Your task to perform on an android device: find snoozed emails in the gmail app Image 0: 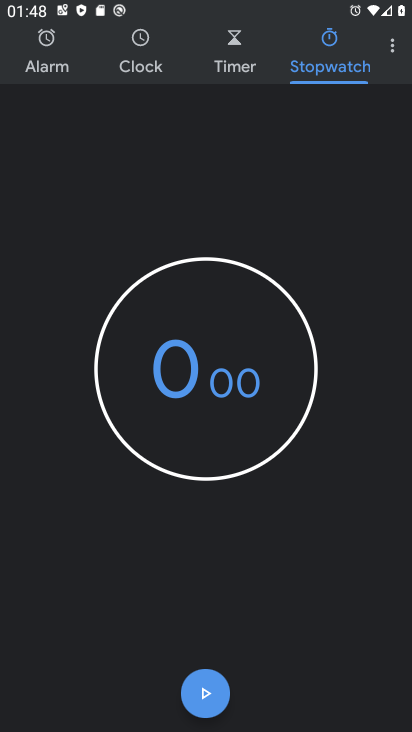
Step 0: press home button
Your task to perform on an android device: find snoozed emails in the gmail app Image 1: 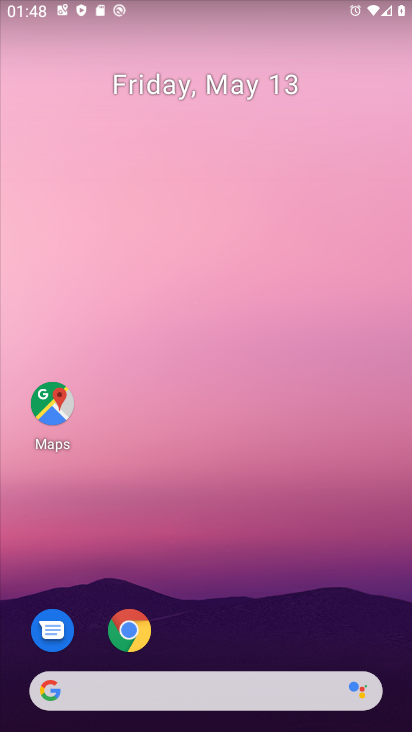
Step 1: drag from (279, 697) to (349, 81)
Your task to perform on an android device: find snoozed emails in the gmail app Image 2: 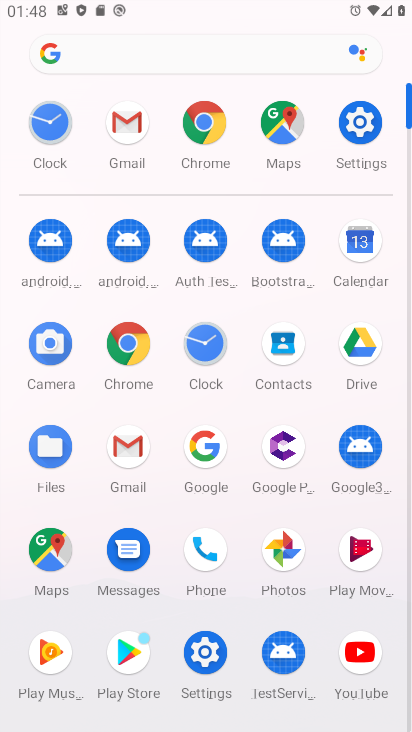
Step 2: click (120, 448)
Your task to perform on an android device: find snoozed emails in the gmail app Image 3: 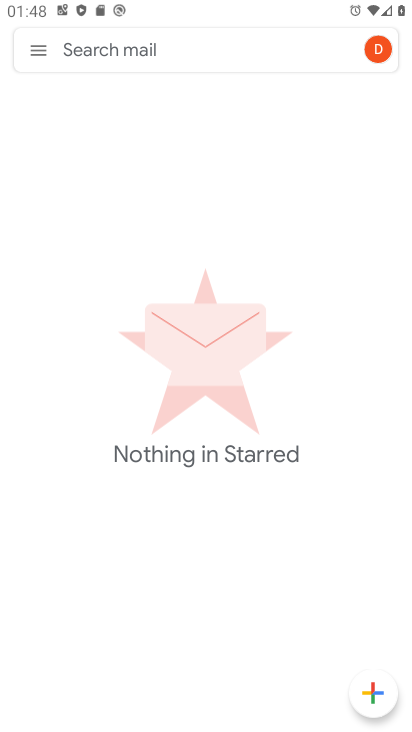
Step 3: click (38, 40)
Your task to perform on an android device: find snoozed emails in the gmail app Image 4: 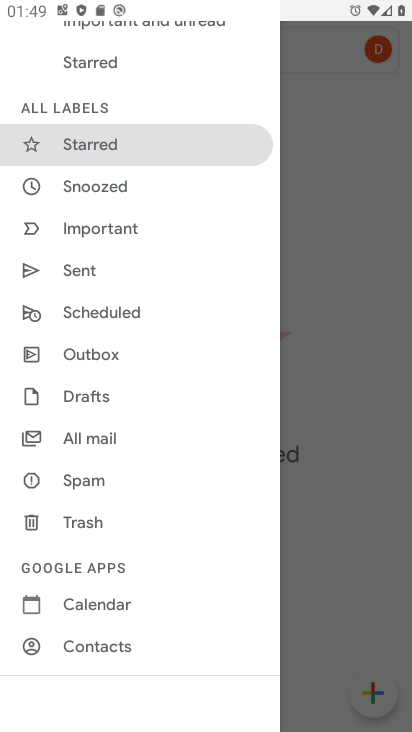
Step 4: click (377, 310)
Your task to perform on an android device: find snoozed emails in the gmail app Image 5: 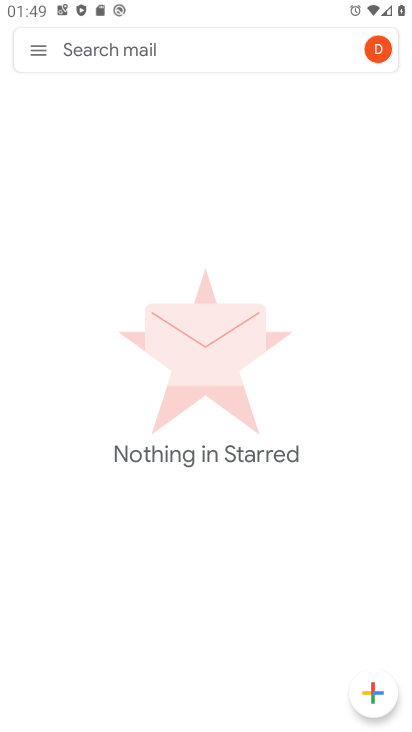
Step 5: click (147, 42)
Your task to perform on an android device: find snoozed emails in the gmail app Image 6: 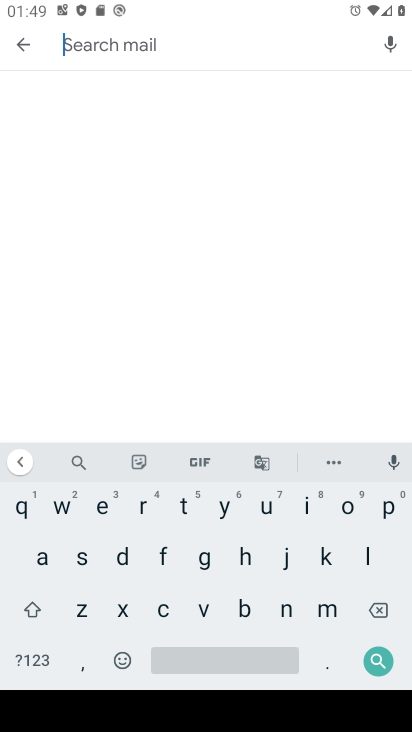
Step 6: click (15, 31)
Your task to perform on an android device: find snoozed emails in the gmail app Image 7: 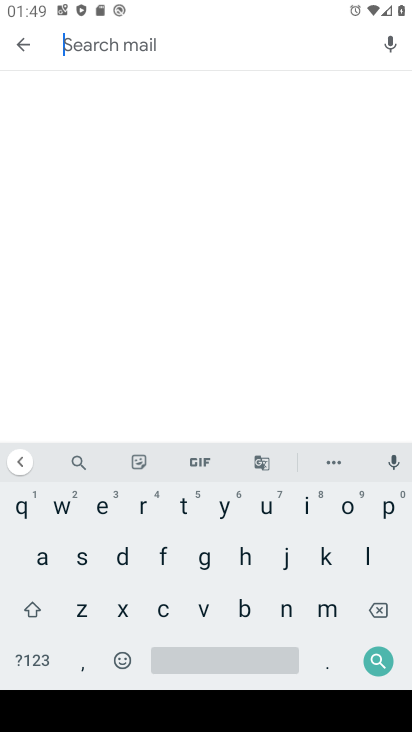
Step 7: click (23, 43)
Your task to perform on an android device: find snoozed emails in the gmail app Image 8: 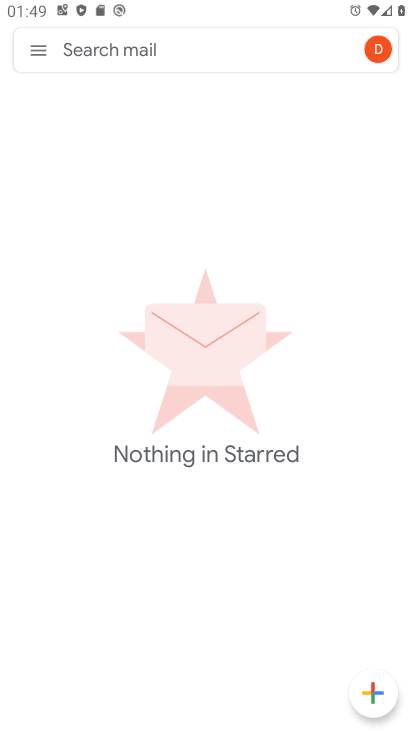
Step 8: click (40, 46)
Your task to perform on an android device: find snoozed emails in the gmail app Image 9: 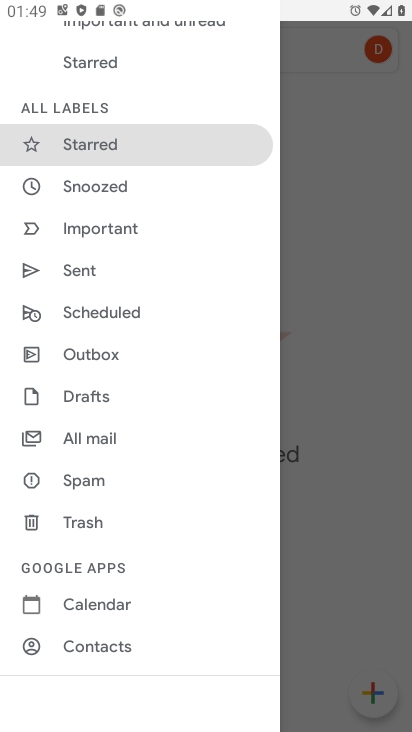
Step 9: click (119, 189)
Your task to perform on an android device: find snoozed emails in the gmail app Image 10: 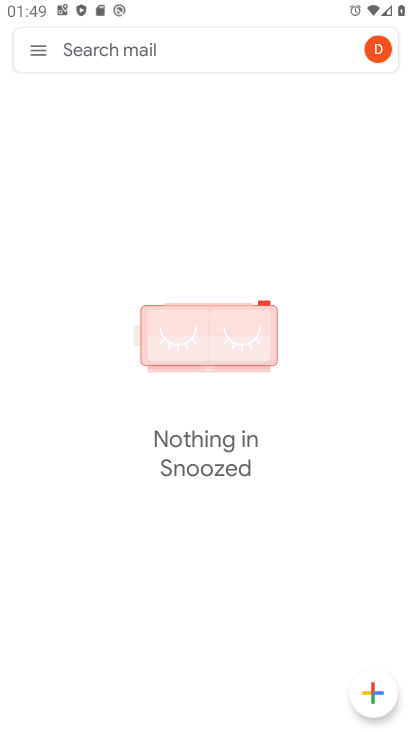
Step 10: task complete